Your task to perform on an android device: Open Google Chrome and click the shortcut for Amazon.com Image 0: 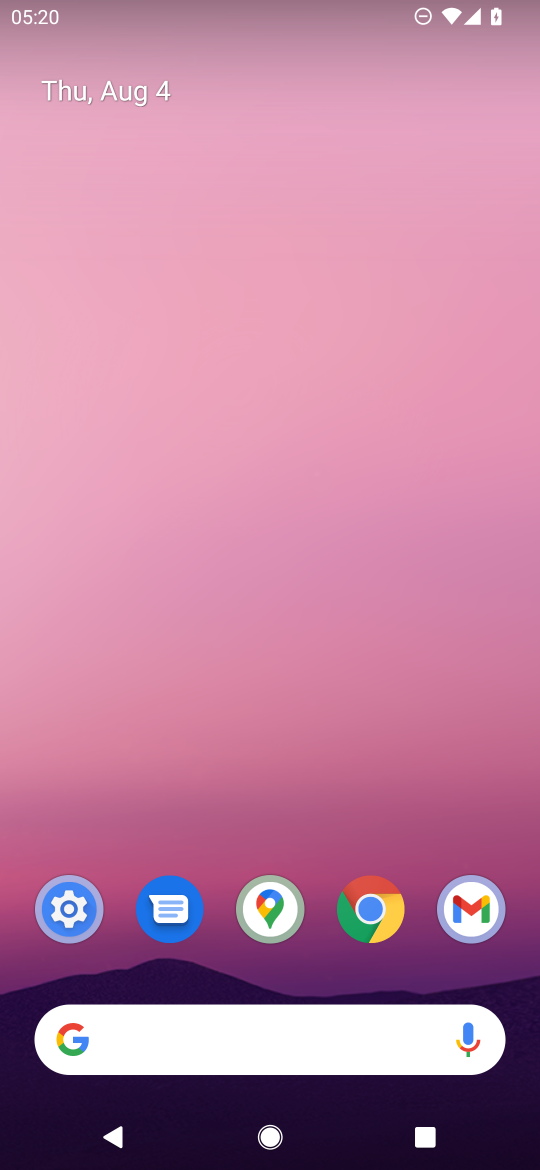
Step 0: press home button
Your task to perform on an android device: Open Google Chrome and click the shortcut for Amazon.com Image 1: 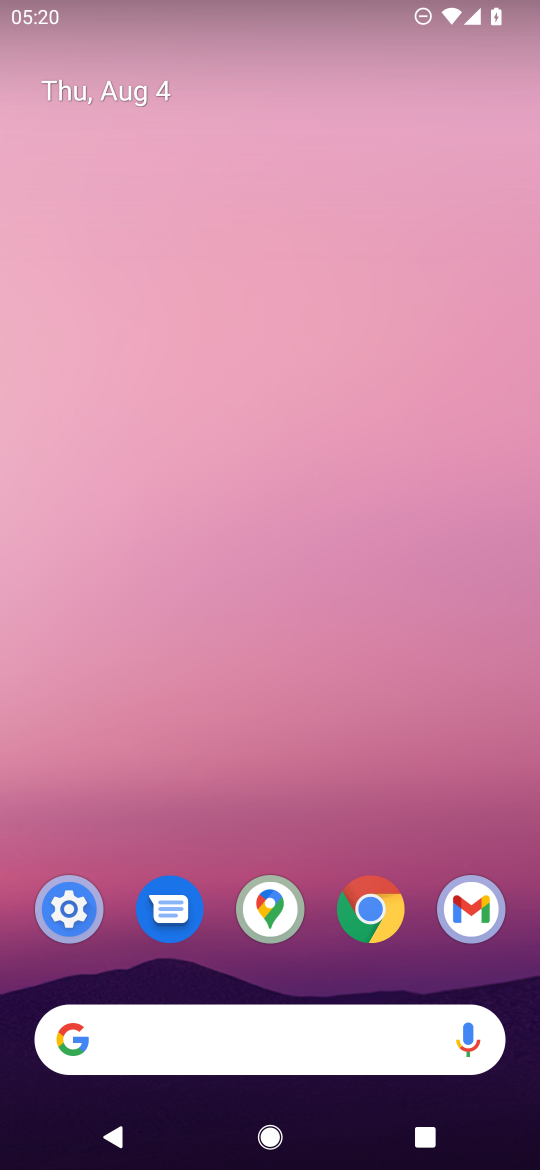
Step 1: click (371, 917)
Your task to perform on an android device: Open Google Chrome and click the shortcut for Amazon.com Image 2: 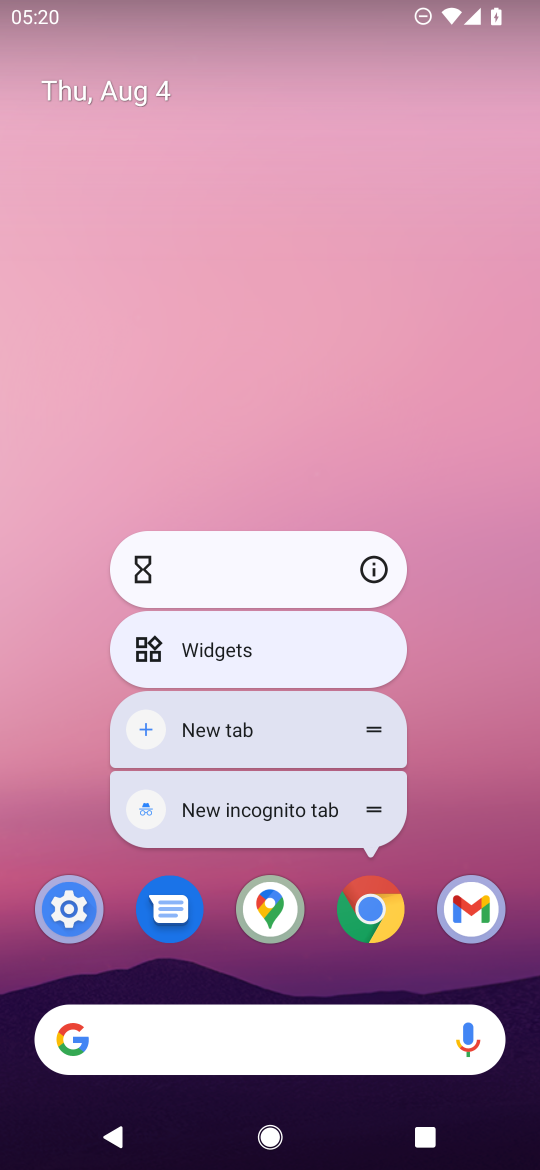
Step 2: click (371, 917)
Your task to perform on an android device: Open Google Chrome and click the shortcut for Amazon.com Image 3: 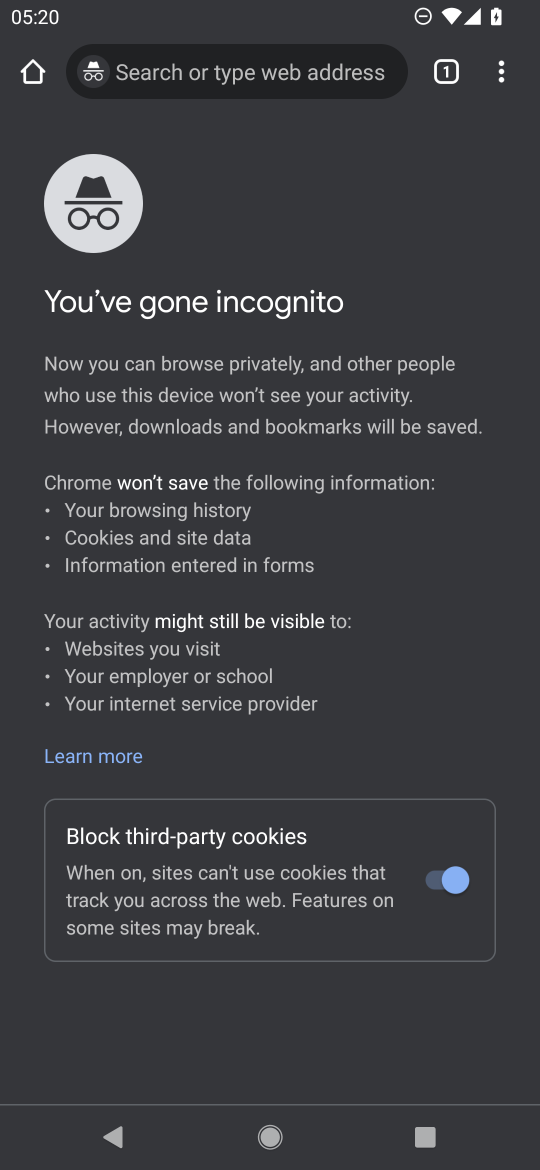
Step 3: click (452, 71)
Your task to perform on an android device: Open Google Chrome and click the shortcut for Amazon.com Image 4: 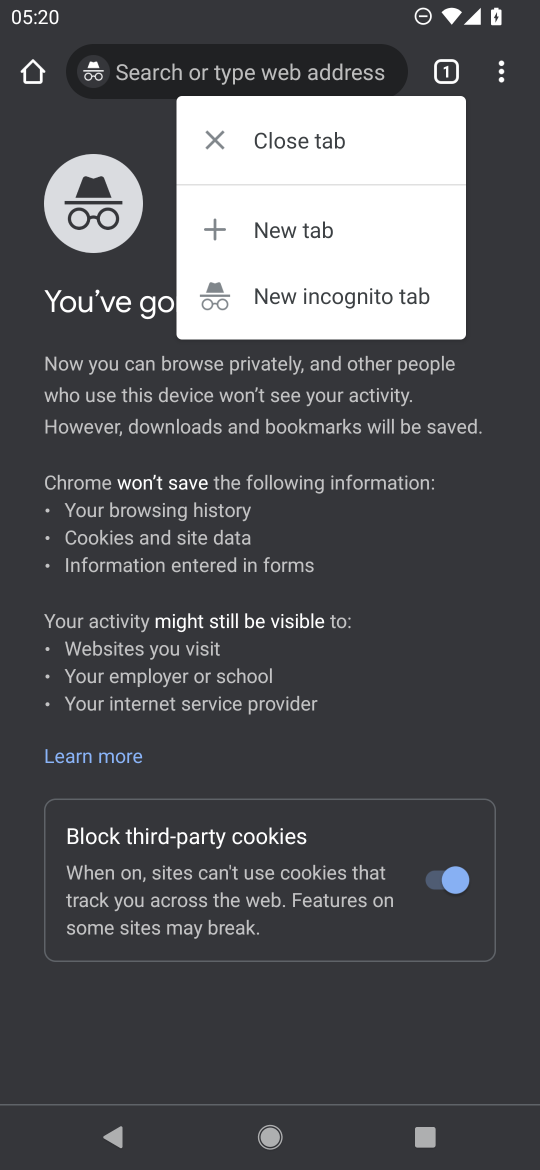
Step 4: click (277, 234)
Your task to perform on an android device: Open Google Chrome and click the shortcut for Amazon.com Image 5: 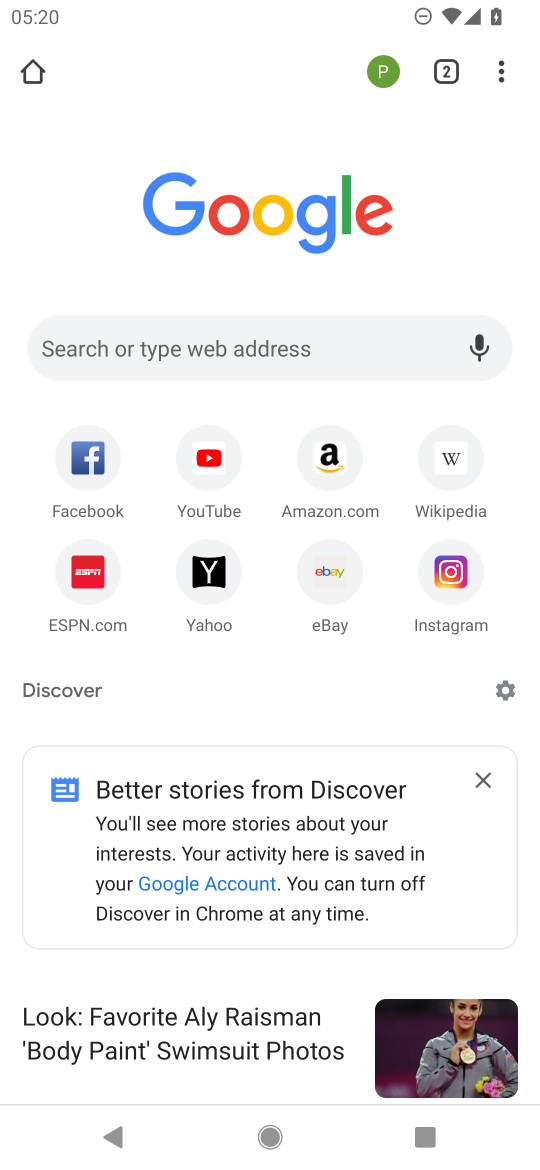
Step 5: click (333, 454)
Your task to perform on an android device: Open Google Chrome and click the shortcut for Amazon.com Image 6: 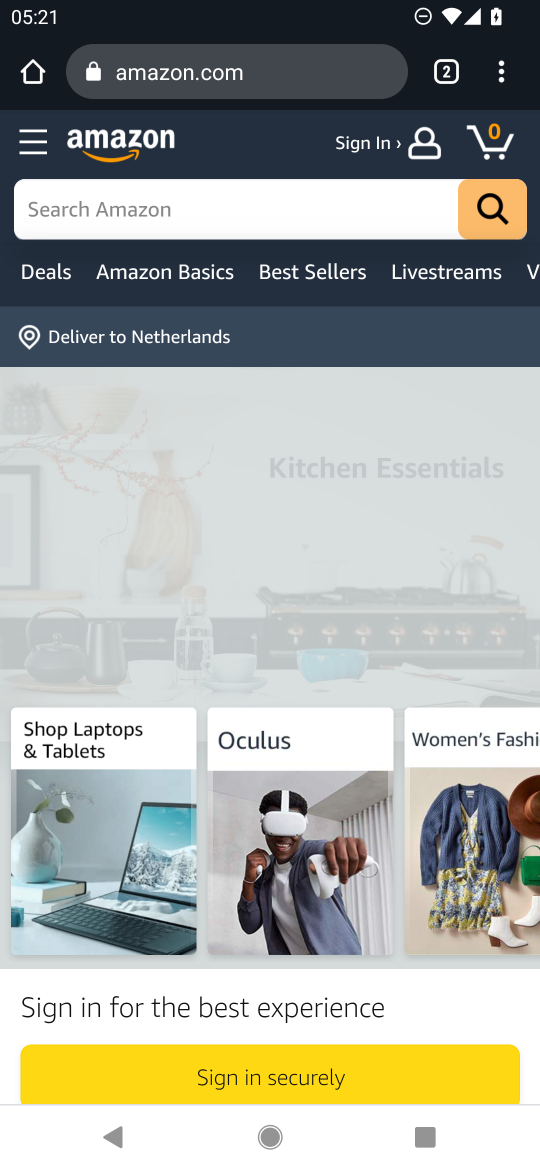
Step 6: task complete